Your task to perform on an android device: What's the weather going to be tomorrow? Image 0: 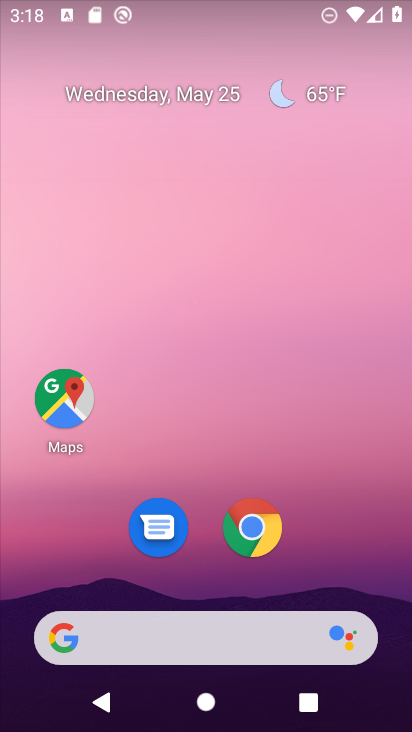
Step 0: drag from (240, 594) to (351, 4)
Your task to perform on an android device: What's the weather going to be tomorrow? Image 1: 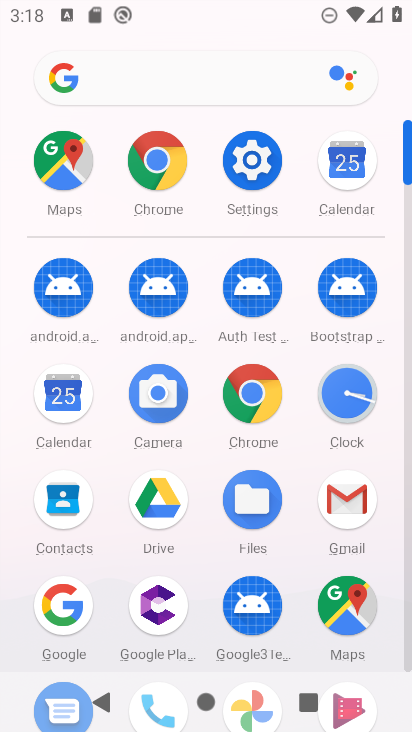
Step 1: press home button
Your task to perform on an android device: What's the weather going to be tomorrow? Image 2: 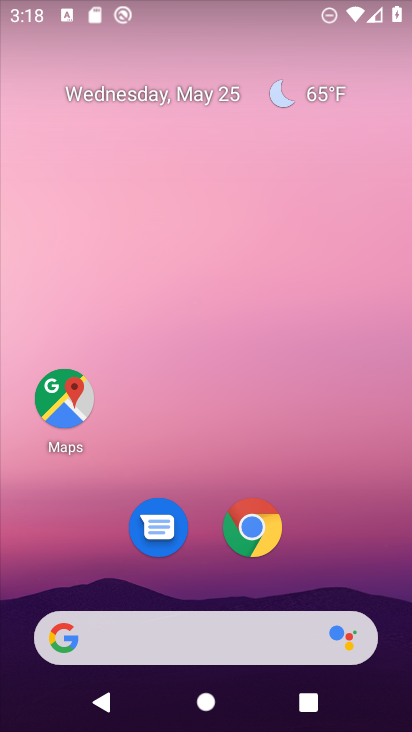
Step 2: drag from (47, 210) to (376, 198)
Your task to perform on an android device: What's the weather going to be tomorrow? Image 3: 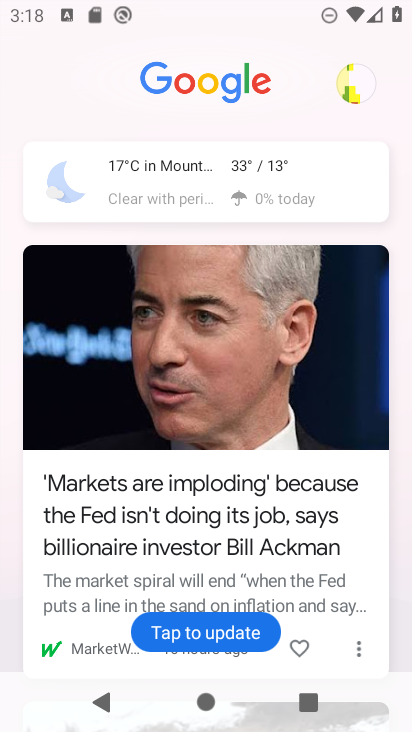
Step 3: click (206, 195)
Your task to perform on an android device: What's the weather going to be tomorrow? Image 4: 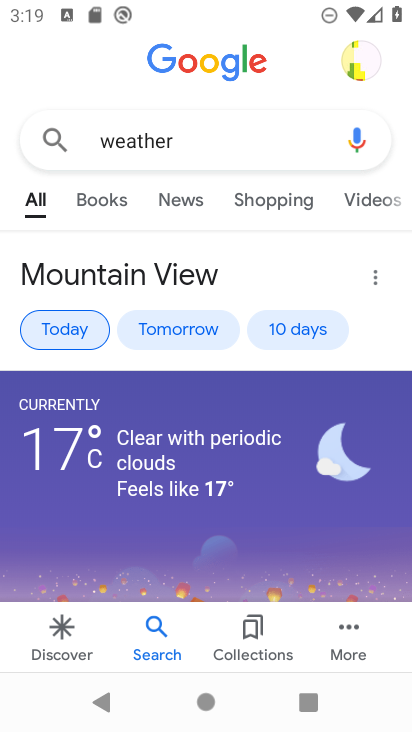
Step 4: task complete